Your task to perform on an android device: Open display settings Image 0: 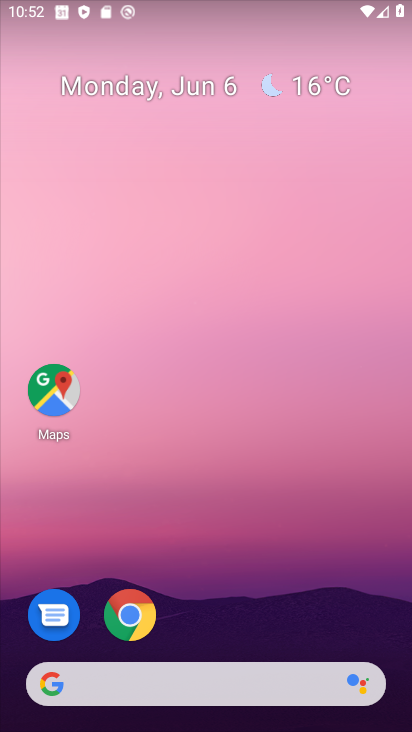
Step 0: drag from (169, 727) to (196, 132)
Your task to perform on an android device: Open display settings Image 1: 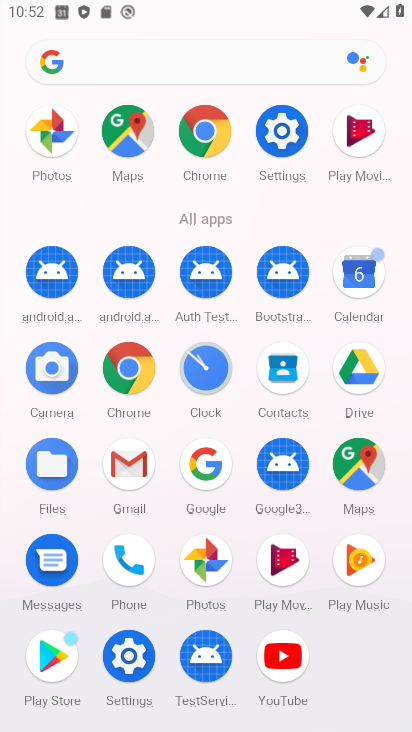
Step 1: click (290, 143)
Your task to perform on an android device: Open display settings Image 2: 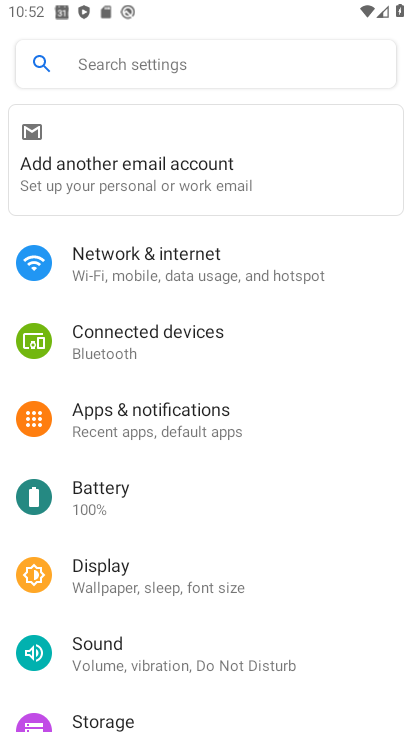
Step 2: click (206, 581)
Your task to perform on an android device: Open display settings Image 3: 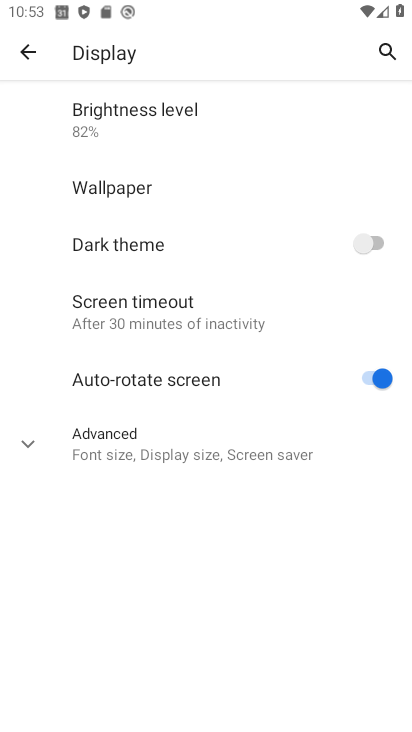
Step 3: task complete